Your task to perform on an android device: change the clock style Image 0: 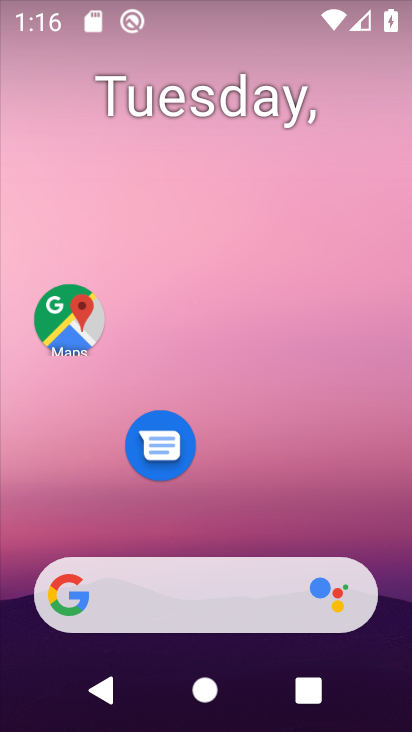
Step 0: press home button
Your task to perform on an android device: change the clock style Image 1: 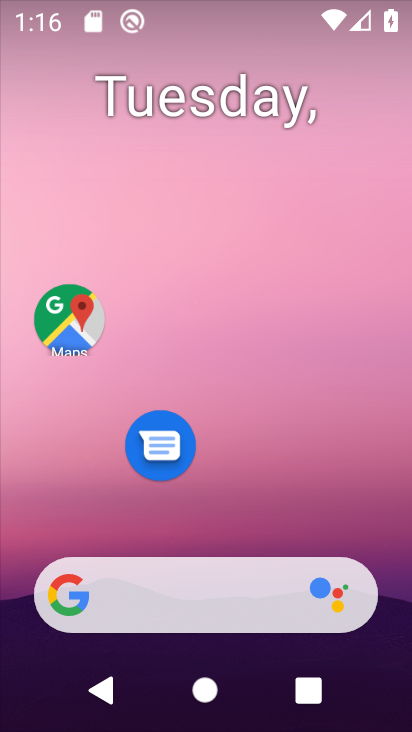
Step 1: drag from (262, 454) to (196, 22)
Your task to perform on an android device: change the clock style Image 2: 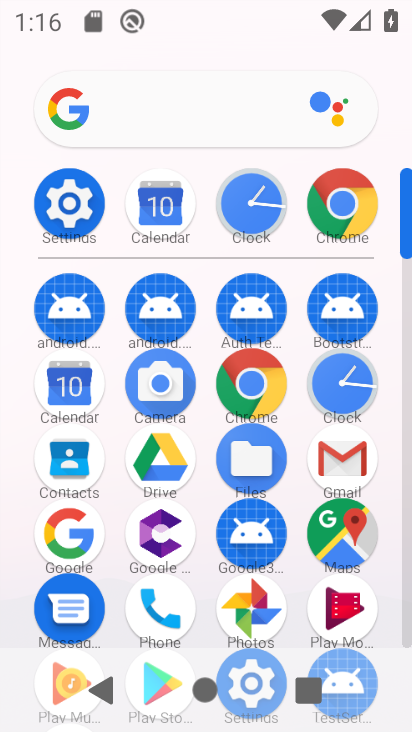
Step 2: click (256, 207)
Your task to perform on an android device: change the clock style Image 3: 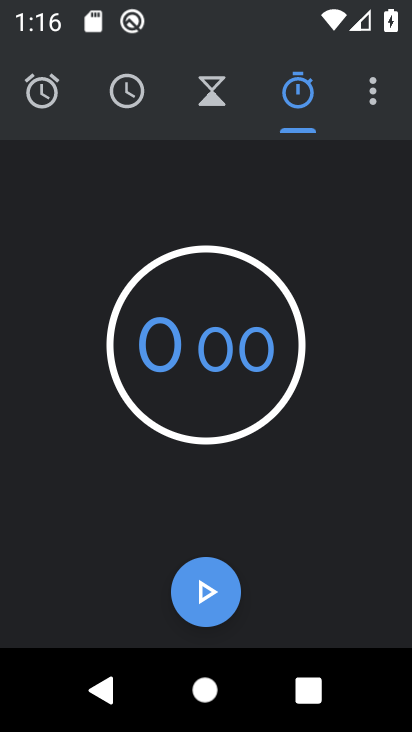
Step 3: click (372, 87)
Your task to perform on an android device: change the clock style Image 4: 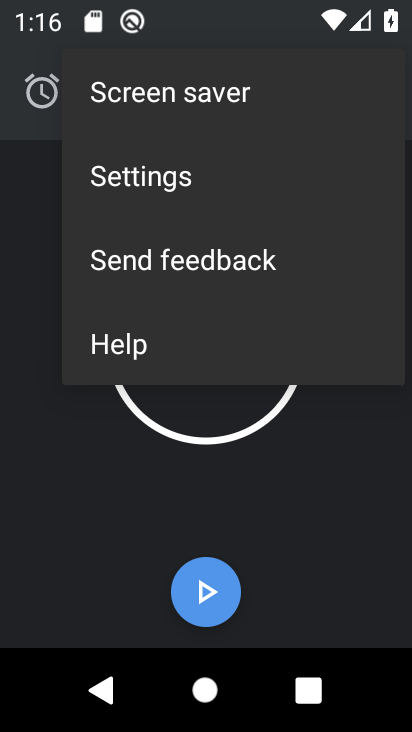
Step 4: click (147, 176)
Your task to perform on an android device: change the clock style Image 5: 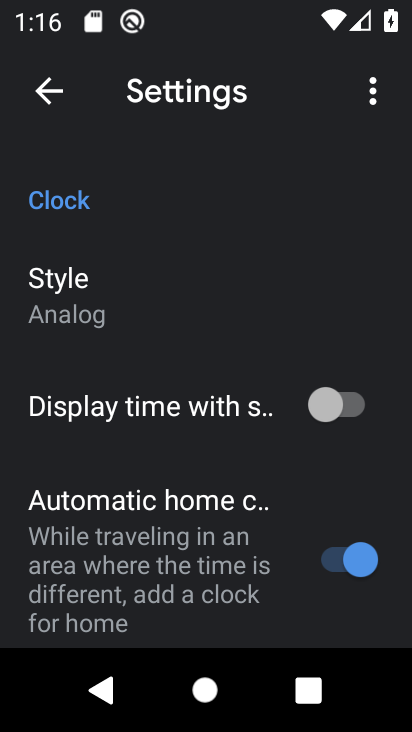
Step 5: click (75, 285)
Your task to perform on an android device: change the clock style Image 6: 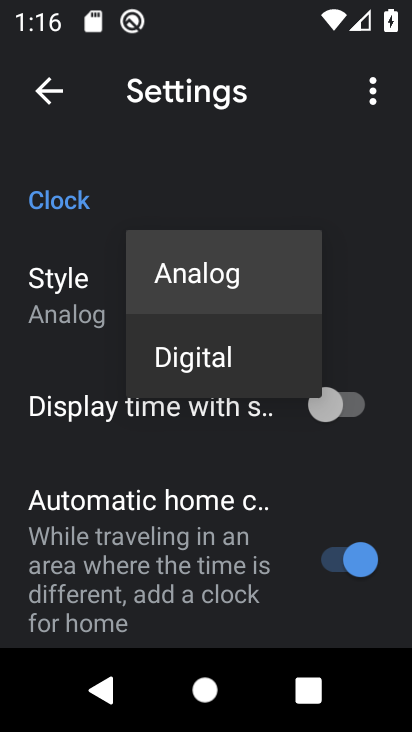
Step 6: click (163, 359)
Your task to perform on an android device: change the clock style Image 7: 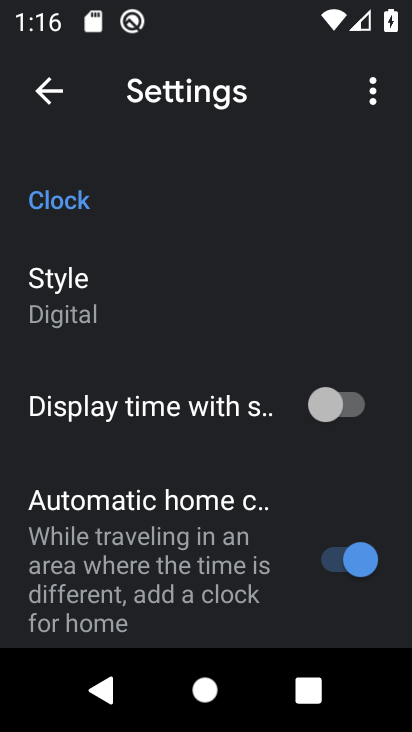
Step 7: task complete